Your task to perform on an android device: see sites visited before in the chrome app Image 0: 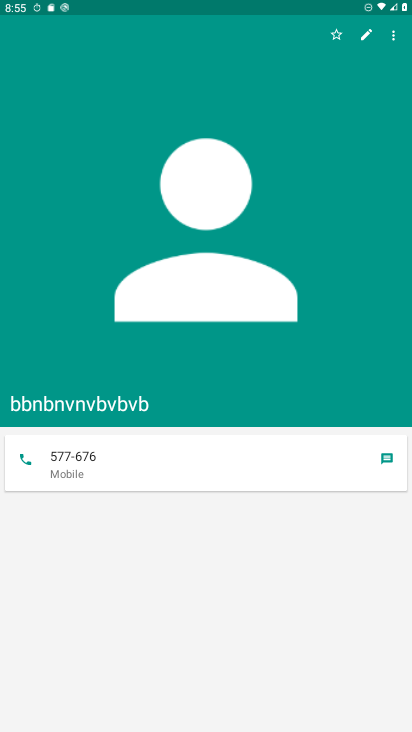
Step 0: press home button
Your task to perform on an android device: see sites visited before in the chrome app Image 1: 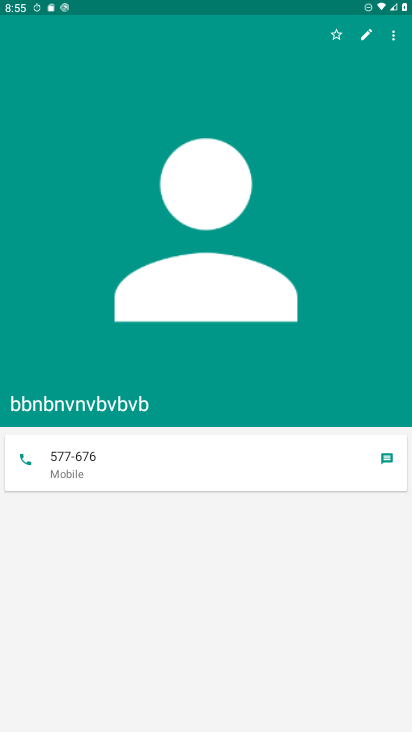
Step 1: drag from (391, 719) to (246, 5)
Your task to perform on an android device: see sites visited before in the chrome app Image 2: 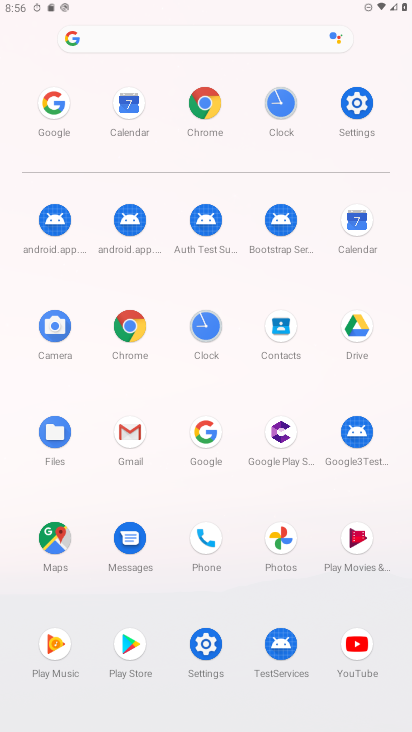
Step 2: click (120, 328)
Your task to perform on an android device: see sites visited before in the chrome app Image 3: 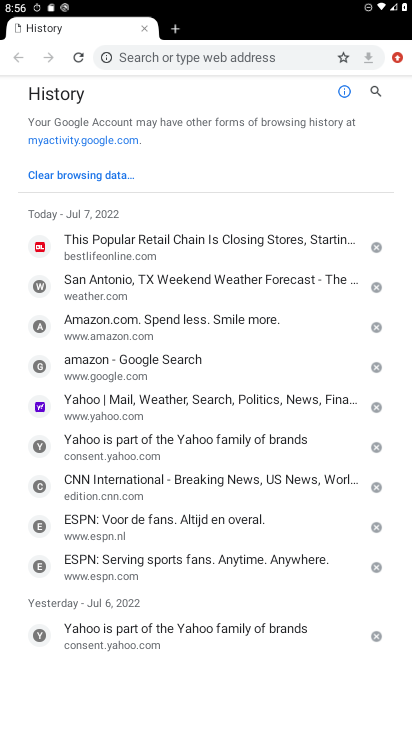
Step 3: press back button
Your task to perform on an android device: see sites visited before in the chrome app Image 4: 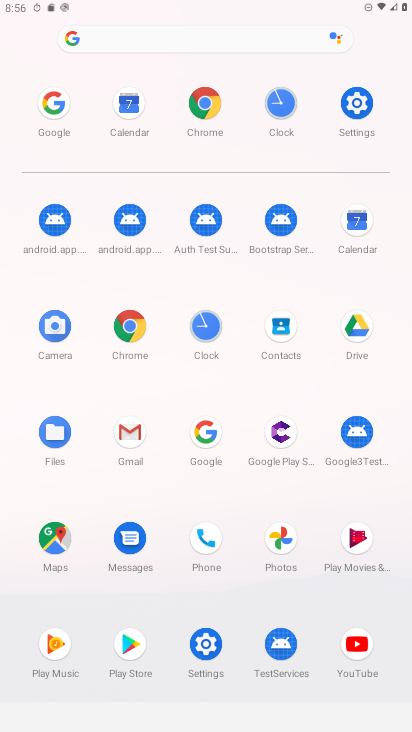
Step 4: click (127, 320)
Your task to perform on an android device: see sites visited before in the chrome app Image 5: 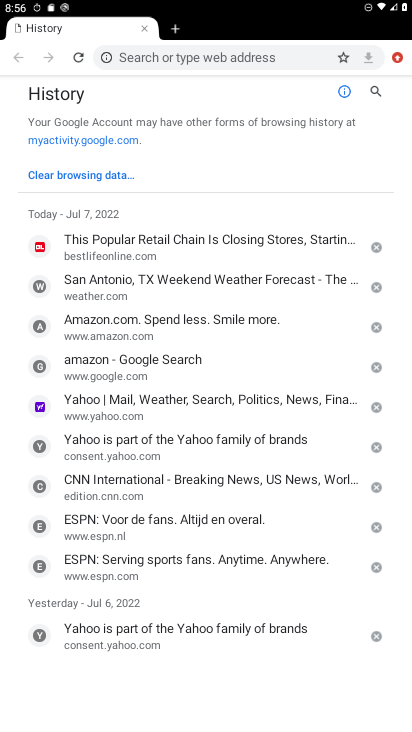
Step 5: task complete